Your task to perform on an android device: set the timer Image 0: 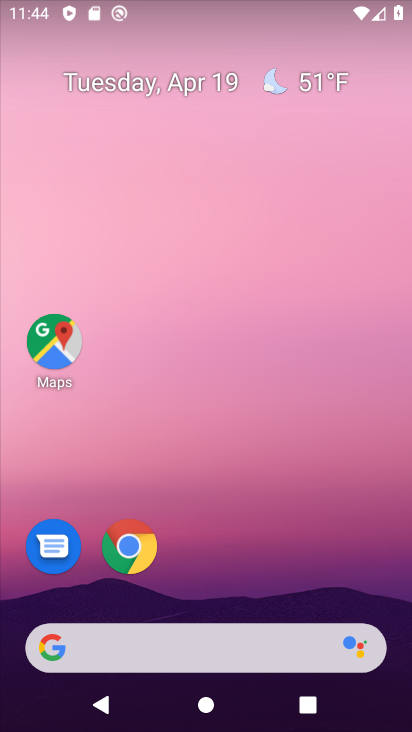
Step 0: drag from (327, 451) to (318, 31)
Your task to perform on an android device: set the timer Image 1: 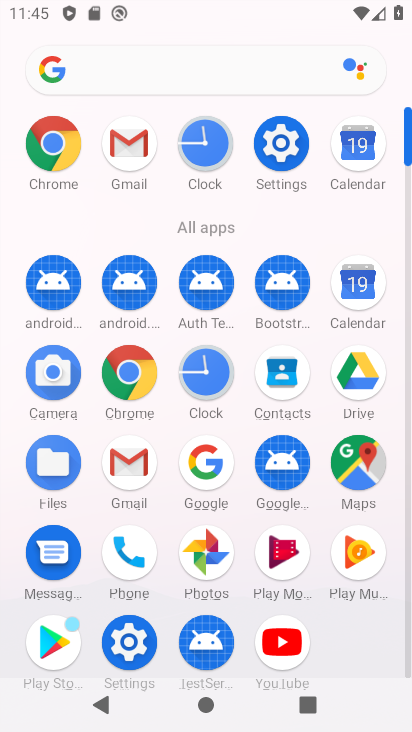
Step 1: click (198, 143)
Your task to perform on an android device: set the timer Image 2: 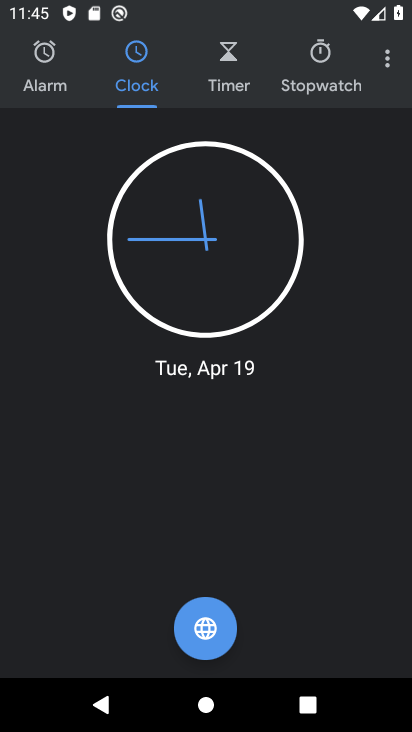
Step 2: click (229, 55)
Your task to perform on an android device: set the timer Image 3: 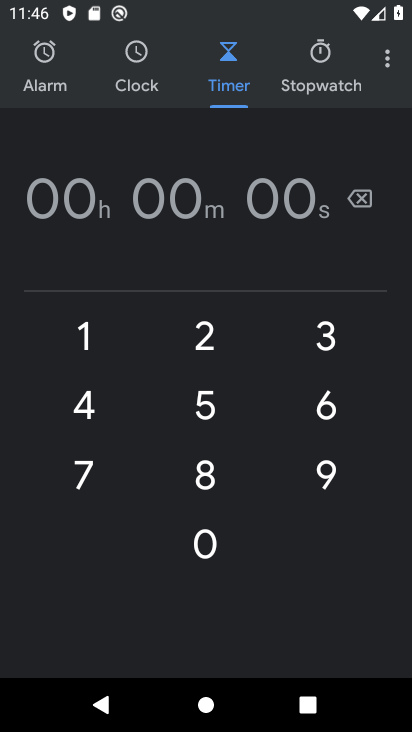
Step 3: click (202, 336)
Your task to perform on an android device: set the timer Image 4: 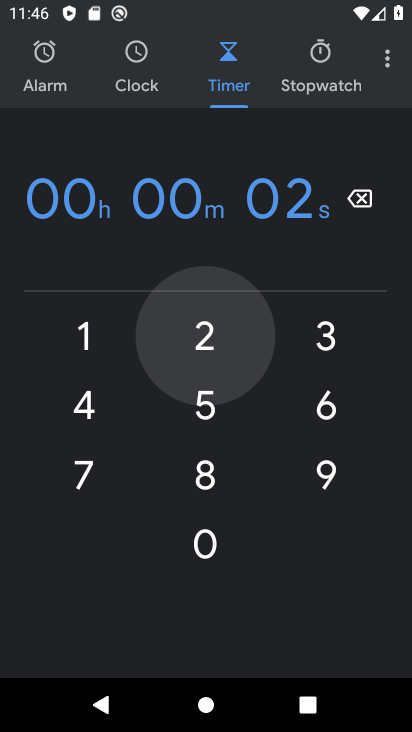
Step 4: click (325, 335)
Your task to perform on an android device: set the timer Image 5: 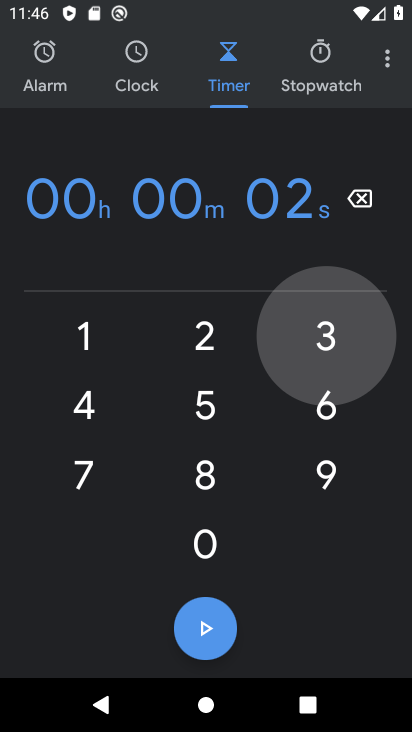
Step 5: click (213, 412)
Your task to perform on an android device: set the timer Image 6: 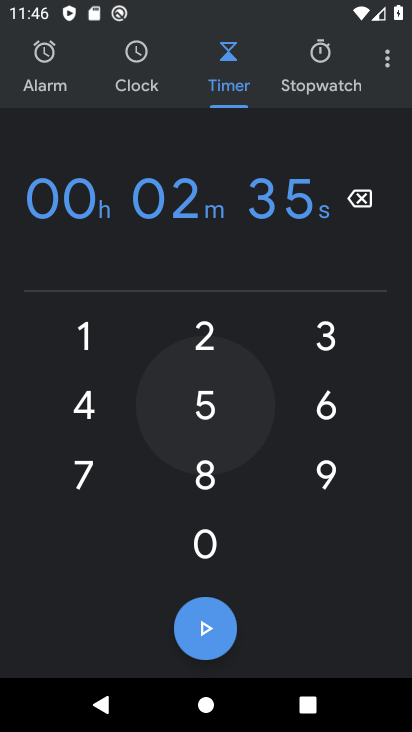
Step 6: click (336, 408)
Your task to perform on an android device: set the timer Image 7: 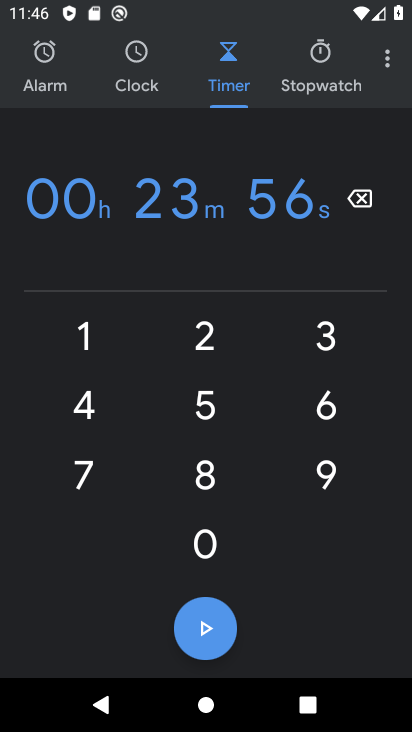
Step 7: click (207, 537)
Your task to perform on an android device: set the timer Image 8: 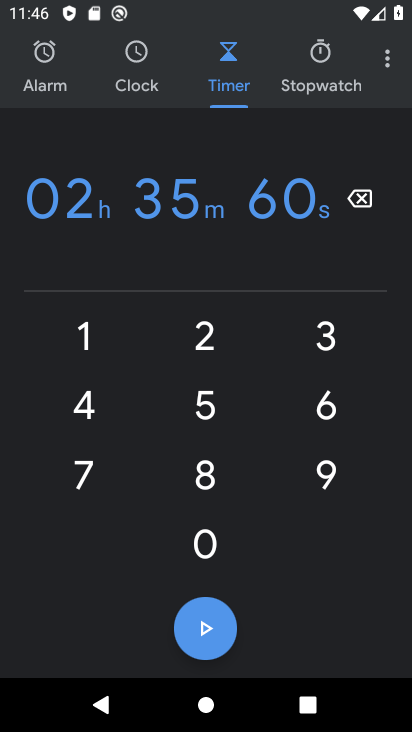
Step 8: click (199, 628)
Your task to perform on an android device: set the timer Image 9: 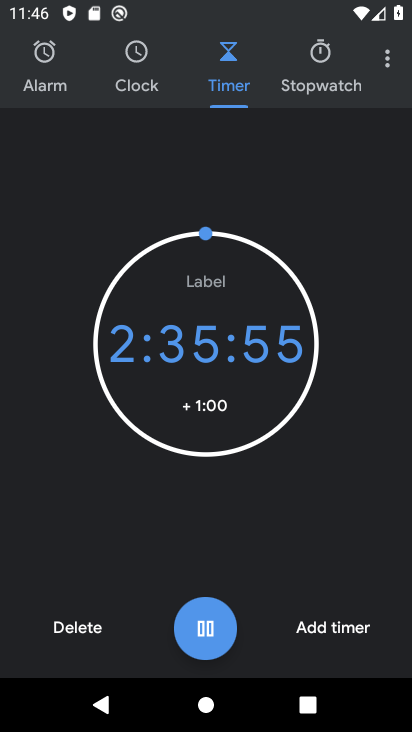
Step 9: task complete